Your task to perform on an android device: Go to wifi settings Image 0: 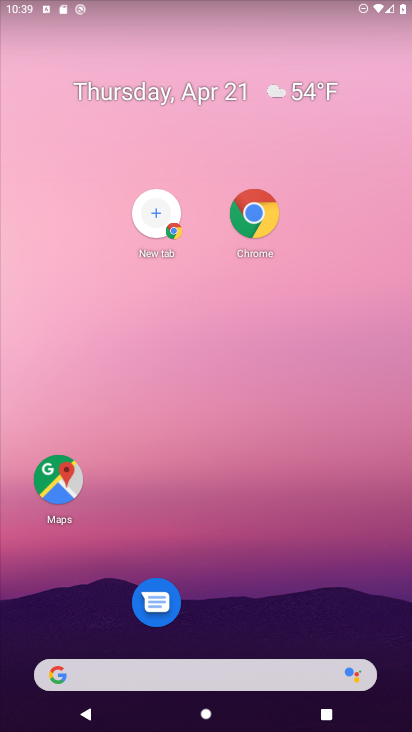
Step 0: drag from (141, 14) to (7, 26)
Your task to perform on an android device: Go to wifi settings Image 1: 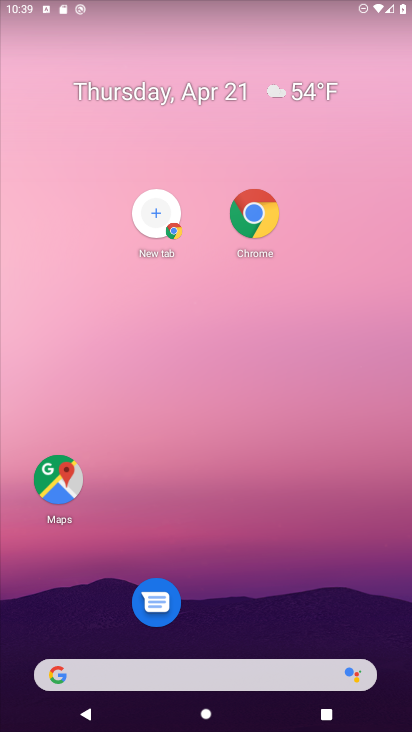
Step 1: drag from (122, 18) to (136, 670)
Your task to perform on an android device: Go to wifi settings Image 2: 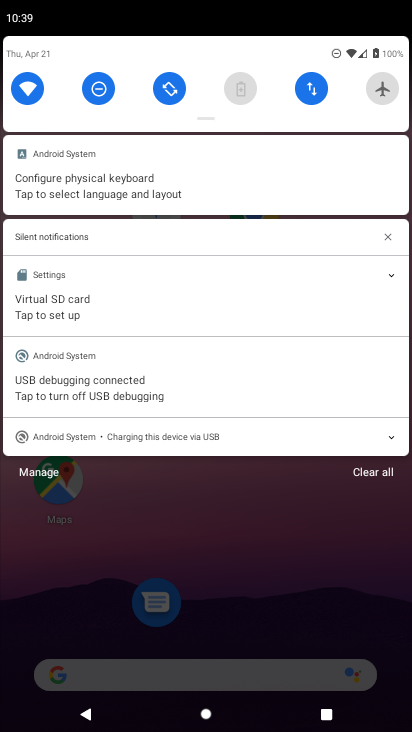
Step 2: click (26, 98)
Your task to perform on an android device: Go to wifi settings Image 3: 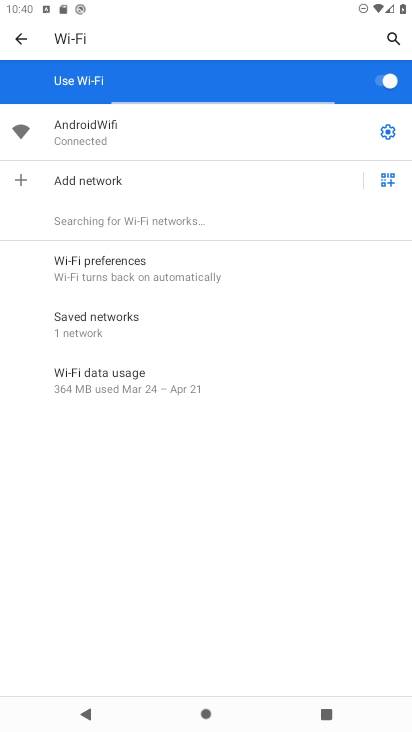
Step 3: task complete